Your task to perform on an android device: turn on location history Image 0: 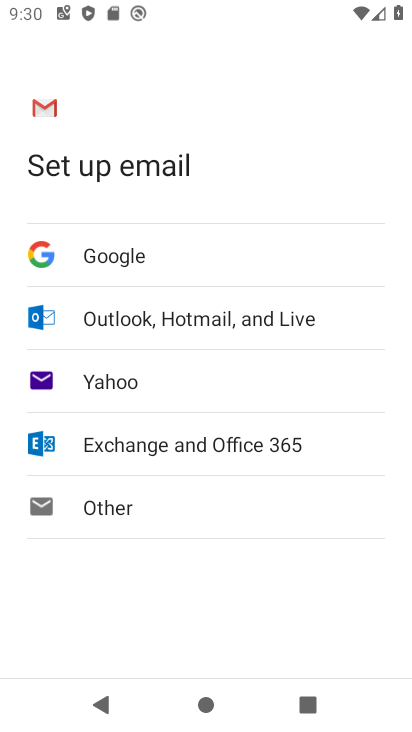
Step 0: press home button
Your task to perform on an android device: turn on location history Image 1: 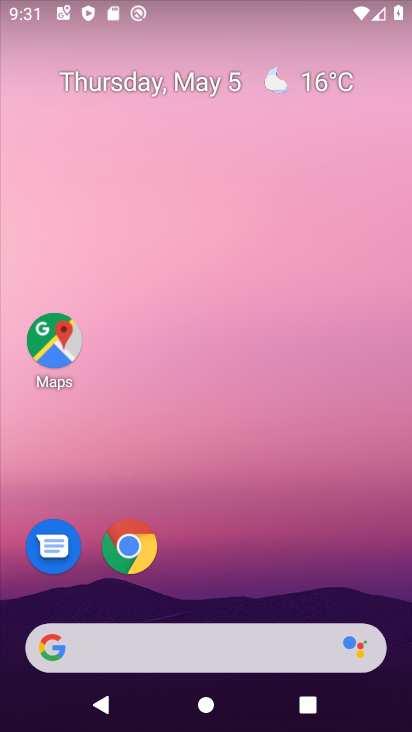
Step 1: drag from (234, 614) to (233, 192)
Your task to perform on an android device: turn on location history Image 2: 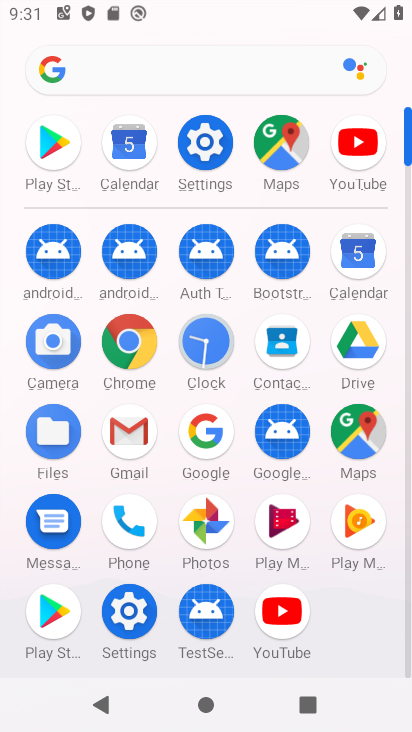
Step 2: click (210, 163)
Your task to perform on an android device: turn on location history Image 3: 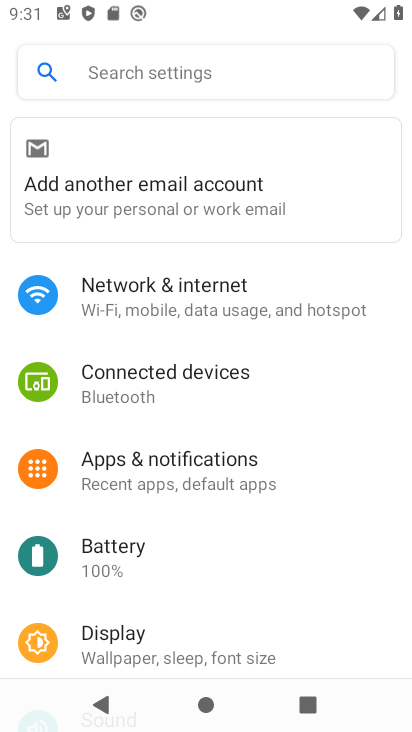
Step 3: drag from (191, 467) to (186, 340)
Your task to perform on an android device: turn on location history Image 4: 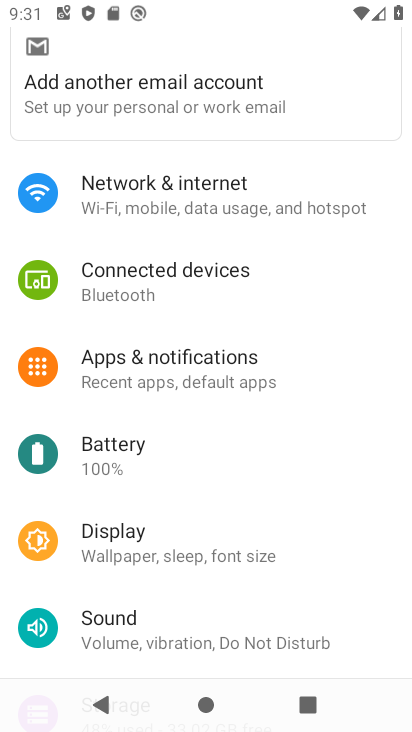
Step 4: drag from (215, 477) to (192, 401)
Your task to perform on an android device: turn on location history Image 5: 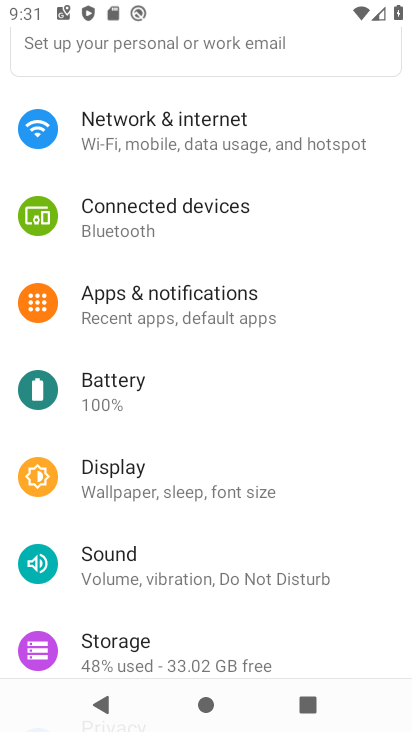
Step 5: drag from (200, 519) to (166, 434)
Your task to perform on an android device: turn on location history Image 6: 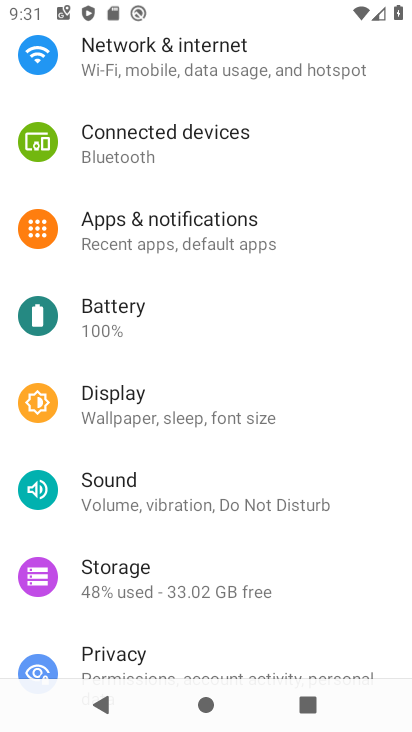
Step 6: drag from (157, 534) to (133, 414)
Your task to perform on an android device: turn on location history Image 7: 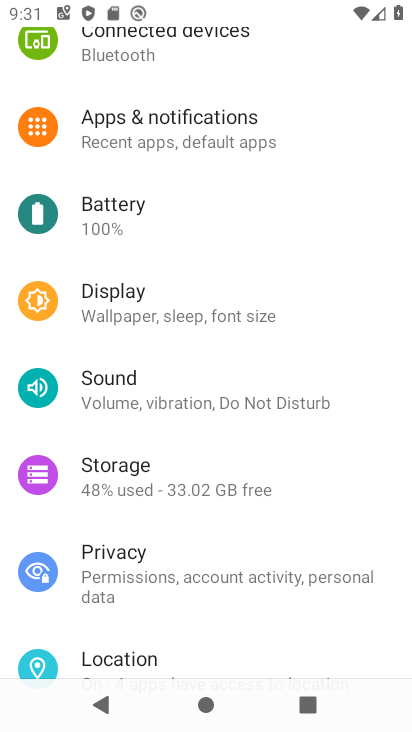
Step 7: click (146, 654)
Your task to perform on an android device: turn on location history Image 8: 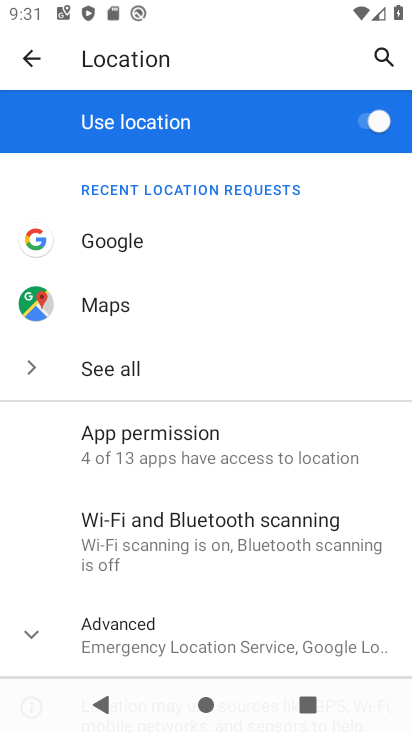
Step 8: click (121, 639)
Your task to perform on an android device: turn on location history Image 9: 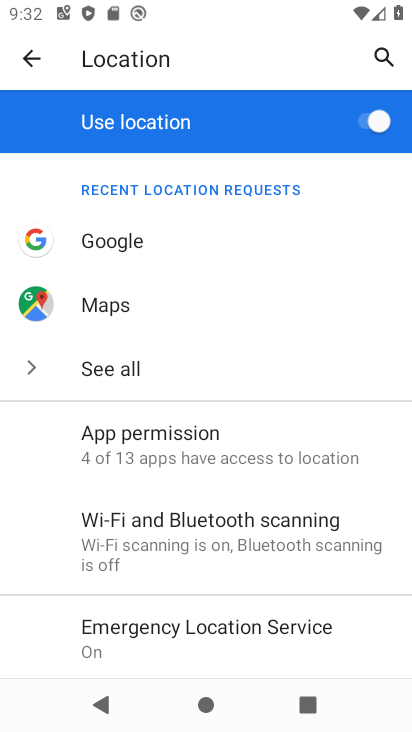
Step 9: drag from (187, 609) to (216, 338)
Your task to perform on an android device: turn on location history Image 10: 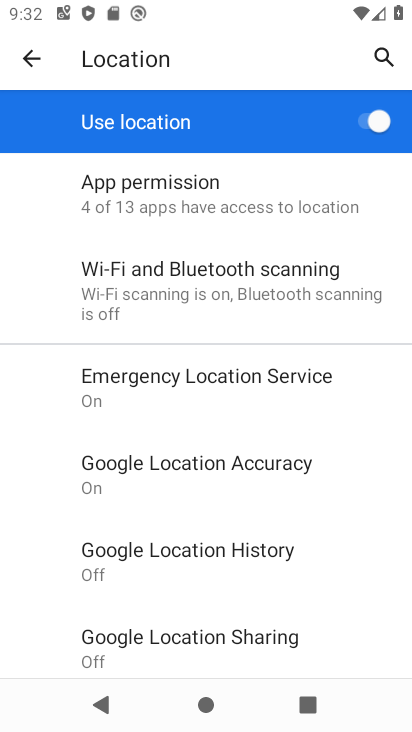
Step 10: click (231, 548)
Your task to perform on an android device: turn on location history Image 11: 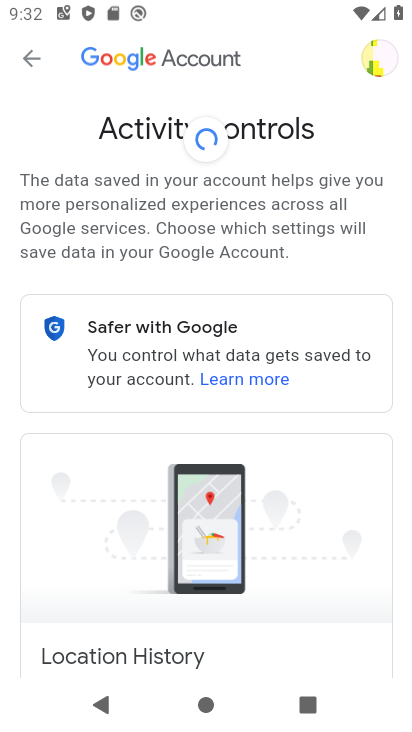
Step 11: task complete